Your task to perform on an android device: turn on wifi Image 0: 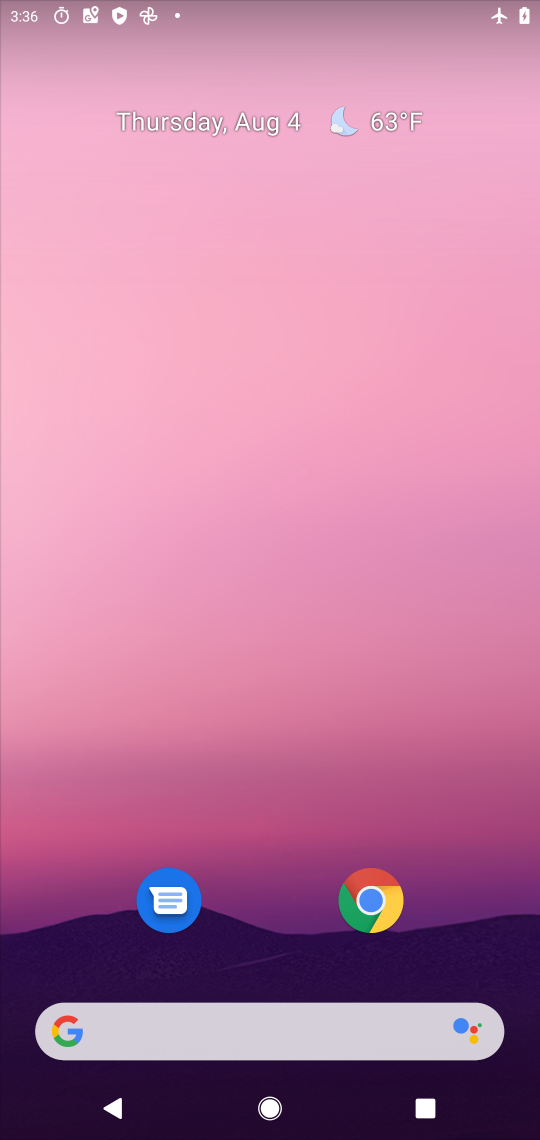
Step 0: drag from (496, 933) to (299, 155)
Your task to perform on an android device: turn on wifi Image 1: 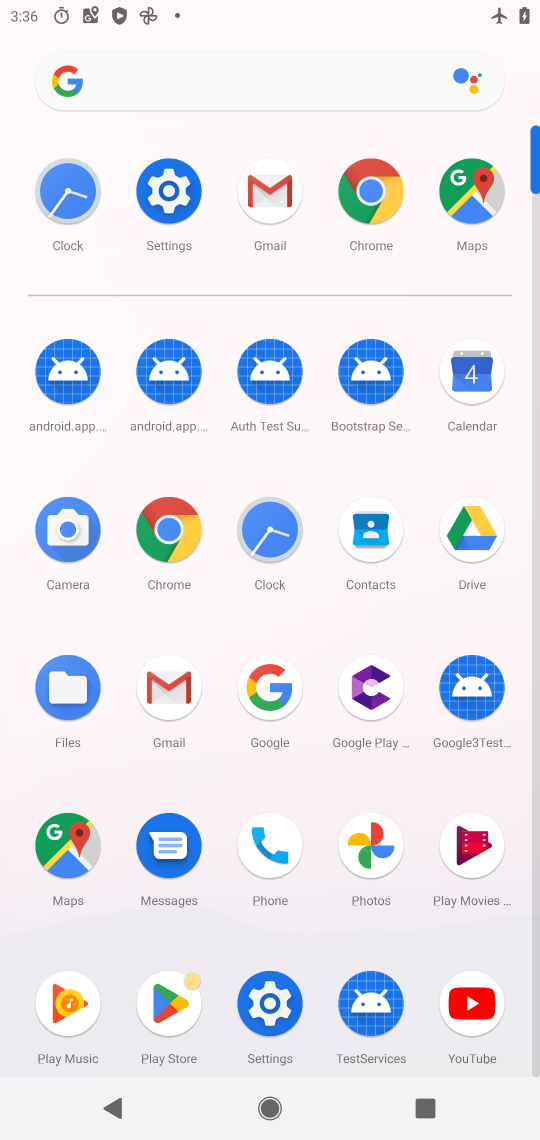
Step 1: click (180, 200)
Your task to perform on an android device: turn on wifi Image 2: 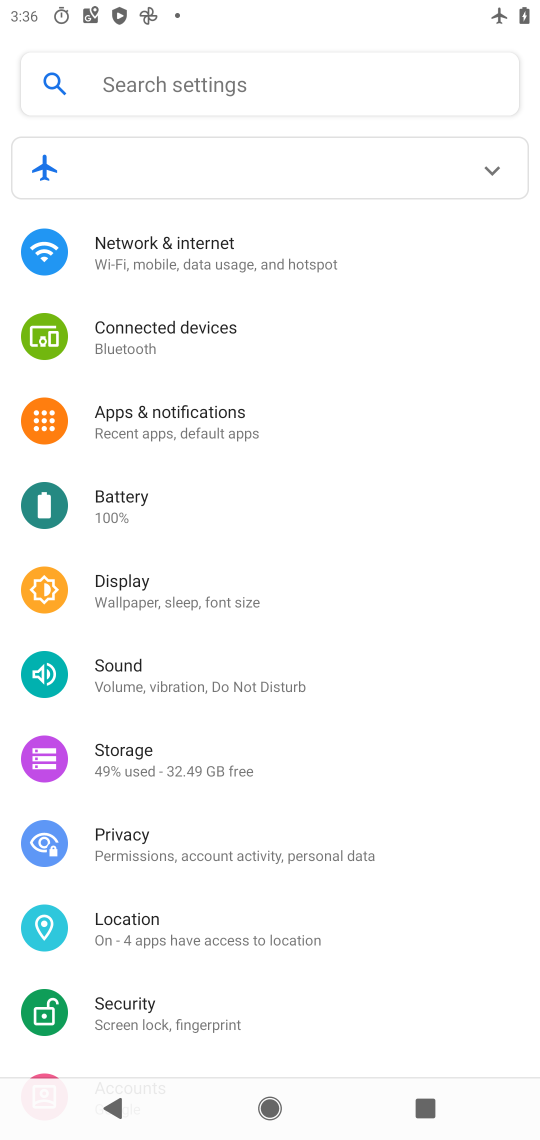
Step 2: click (239, 277)
Your task to perform on an android device: turn on wifi Image 3: 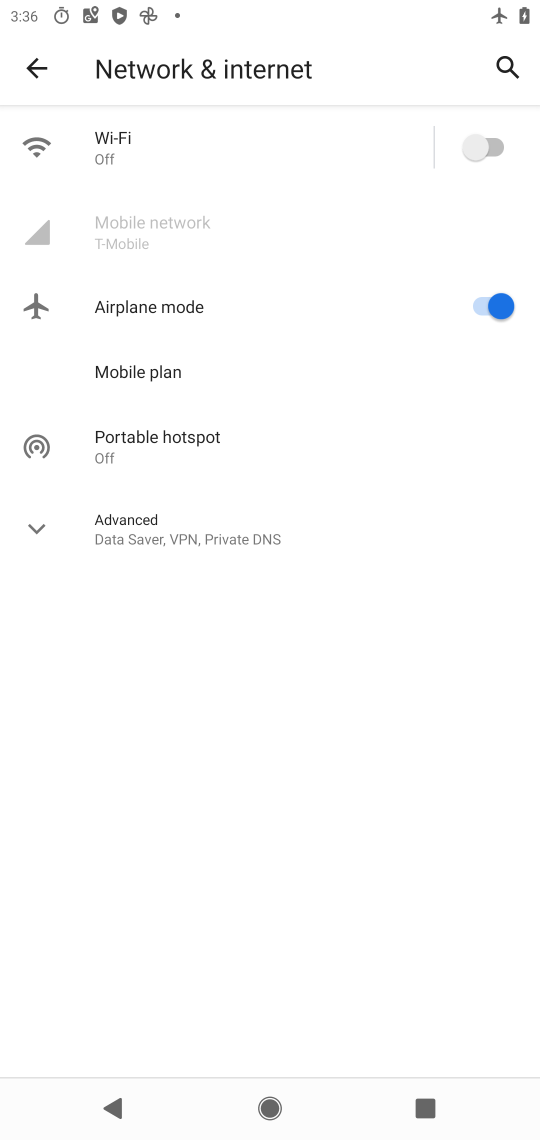
Step 3: click (498, 132)
Your task to perform on an android device: turn on wifi Image 4: 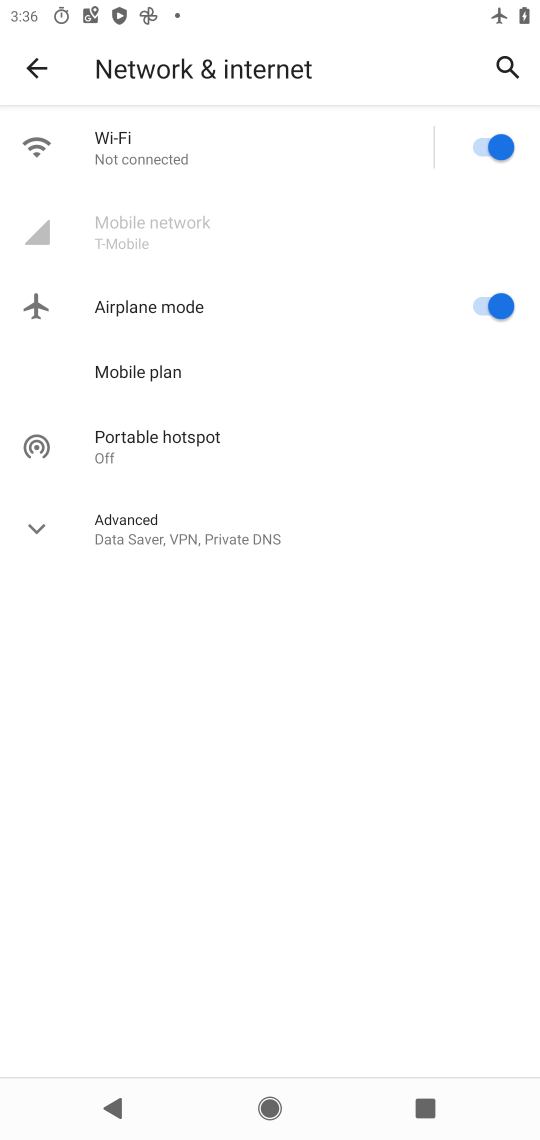
Step 4: task complete